Your task to perform on an android device: Open Chrome and go to settings Image 0: 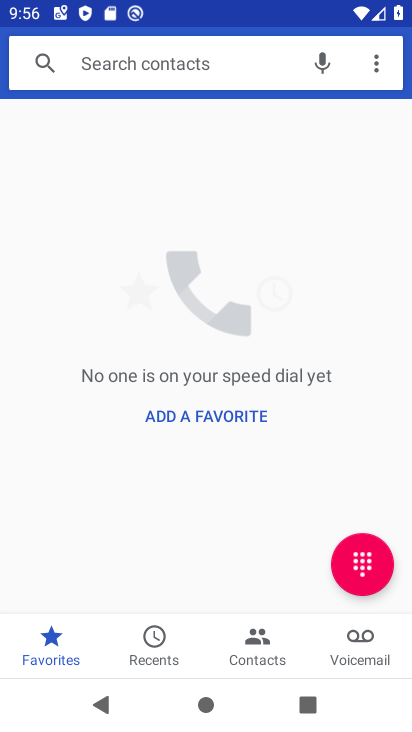
Step 0: press home button
Your task to perform on an android device: Open Chrome and go to settings Image 1: 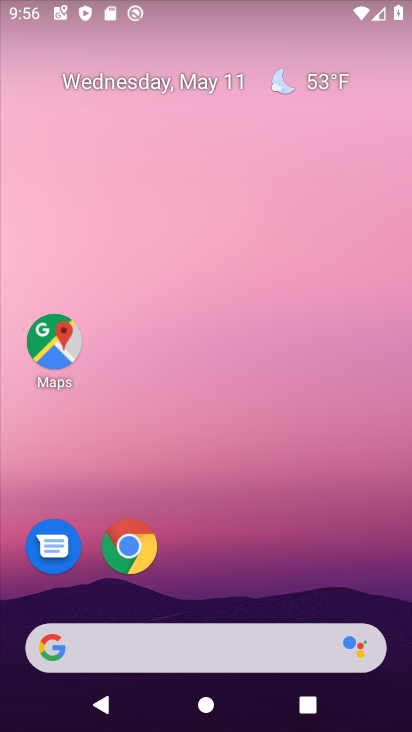
Step 1: drag from (386, 628) to (300, 26)
Your task to perform on an android device: Open Chrome and go to settings Image 2: 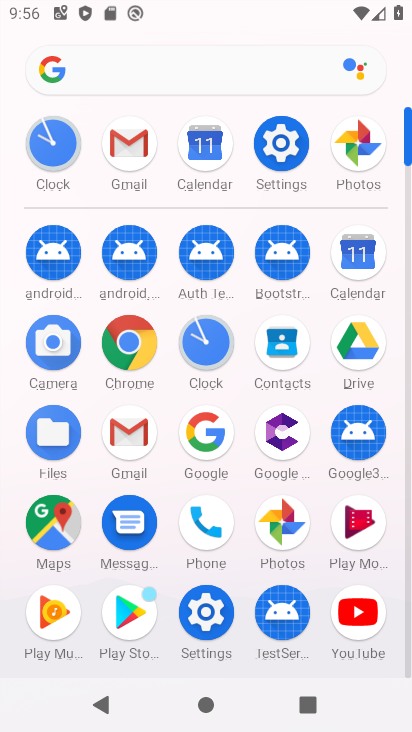
Step 2: click (139, 364)
Your task to perform on an android device: Open Chrome and go to settings Image 3: 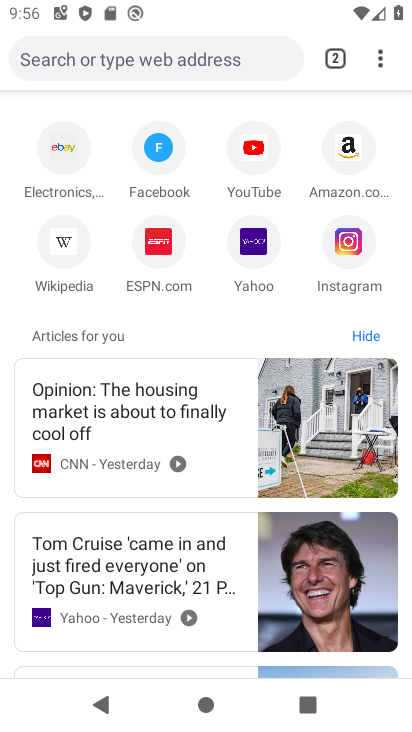
Step 3: click (378, 55)
Your task to perform on an android device: Open Chrome and go to settings Image 4: 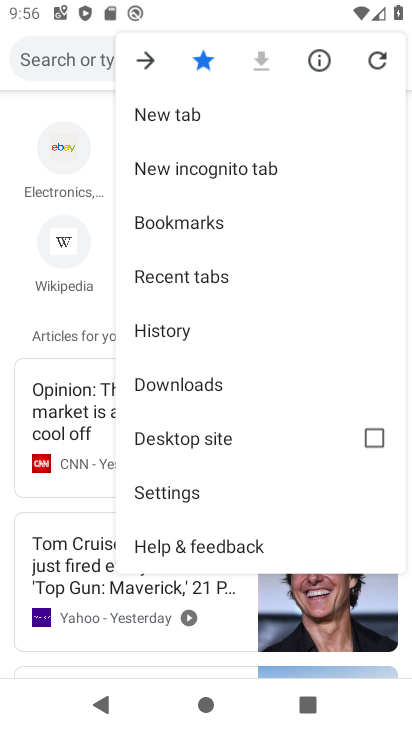
Step 4: click (210, 498)
Your task to perform on an android device: Open Chrome and go to settings Image 5: 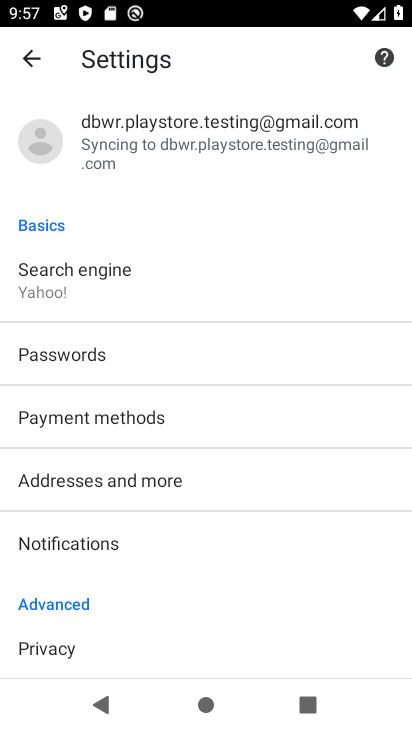
Step 5: task complete